Your task to perform on an android device: Open ESPN.com Image 0: 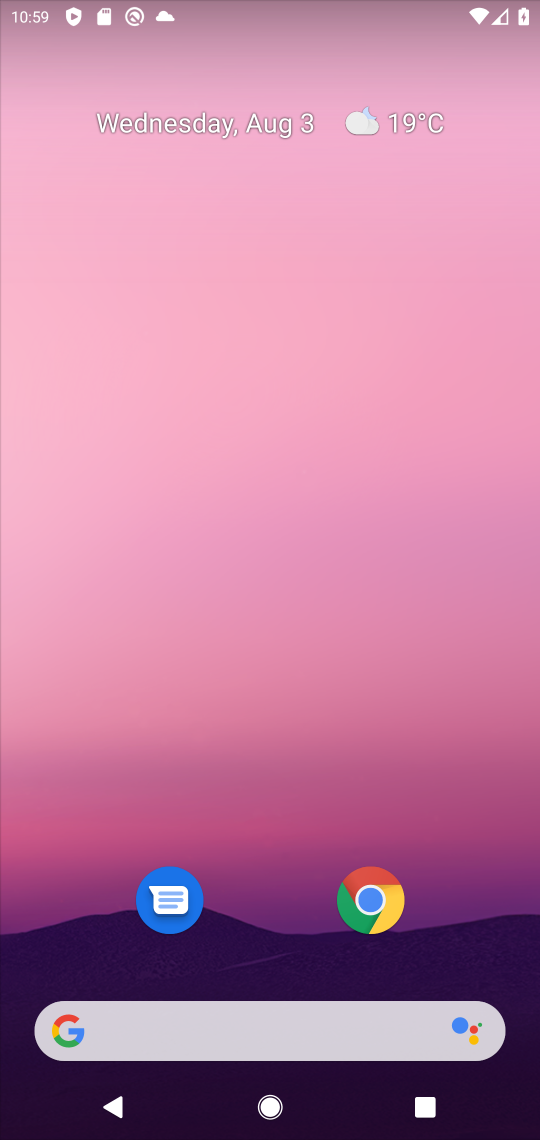
Step 0: press home button
Your task to perform on an android device: Open ESPN.com Image 1: 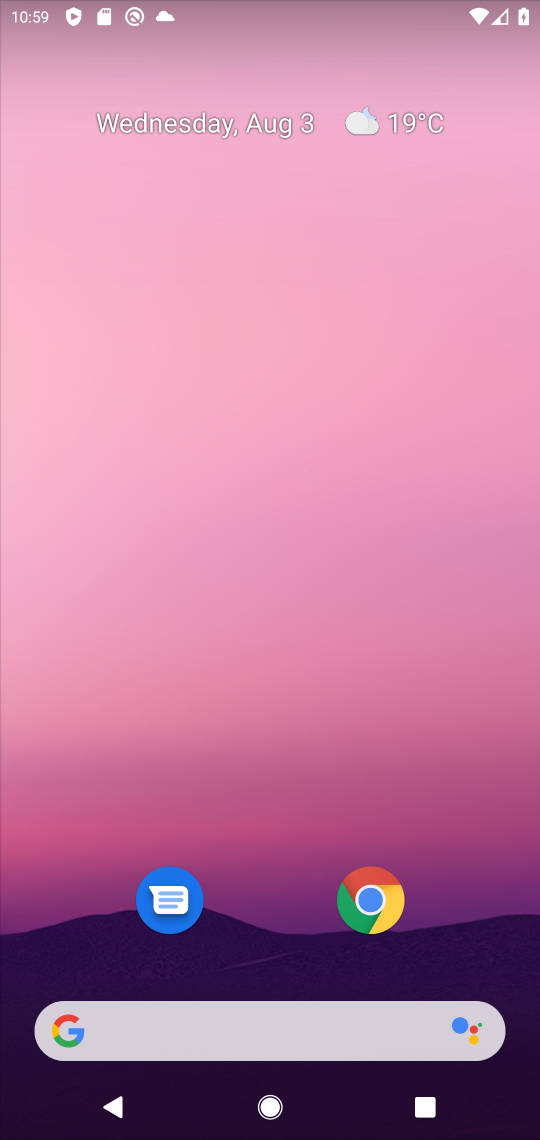
Step 1: click (65, 1037)
Your task to perform on an android device: Open ESPN.com Image 2: 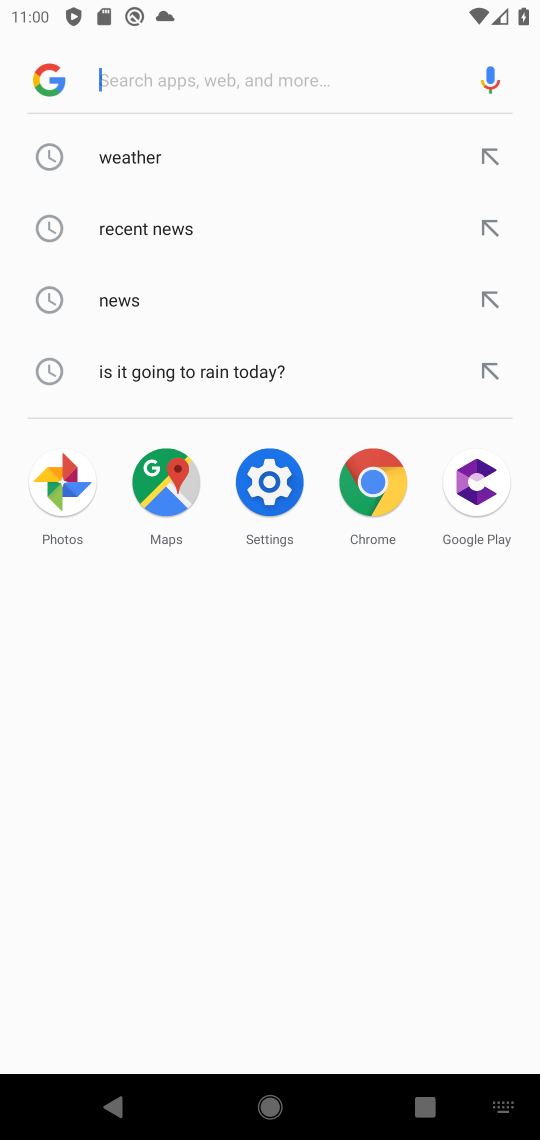
Step 2: type "ESPN.com"
Your task to perform on an android device: Open ESPN.com Image 3: 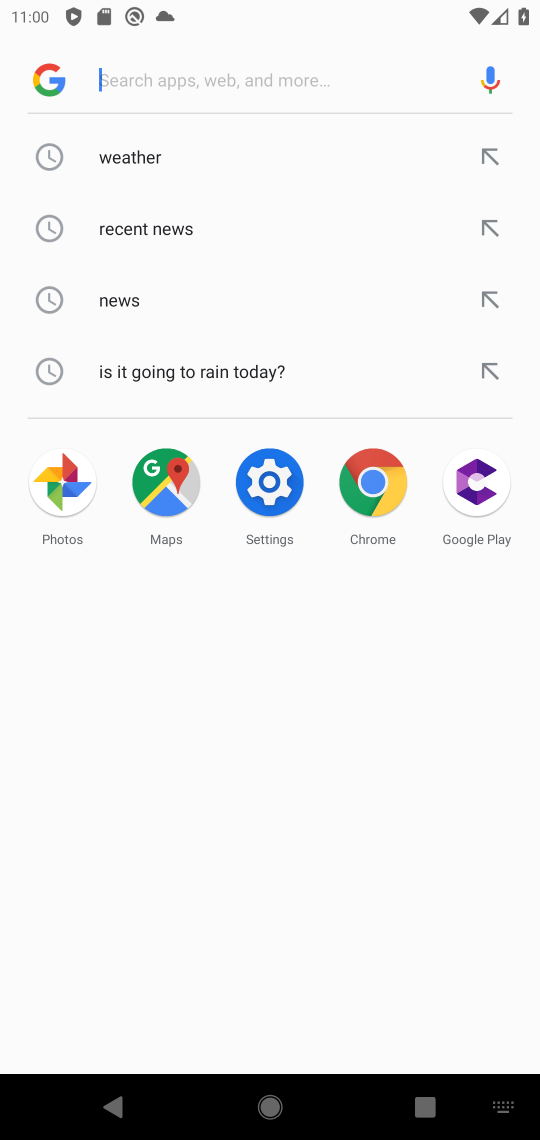
Step 3: click (197, 80)
Your task to perform on an android device: Open ESPN.com Image 4: 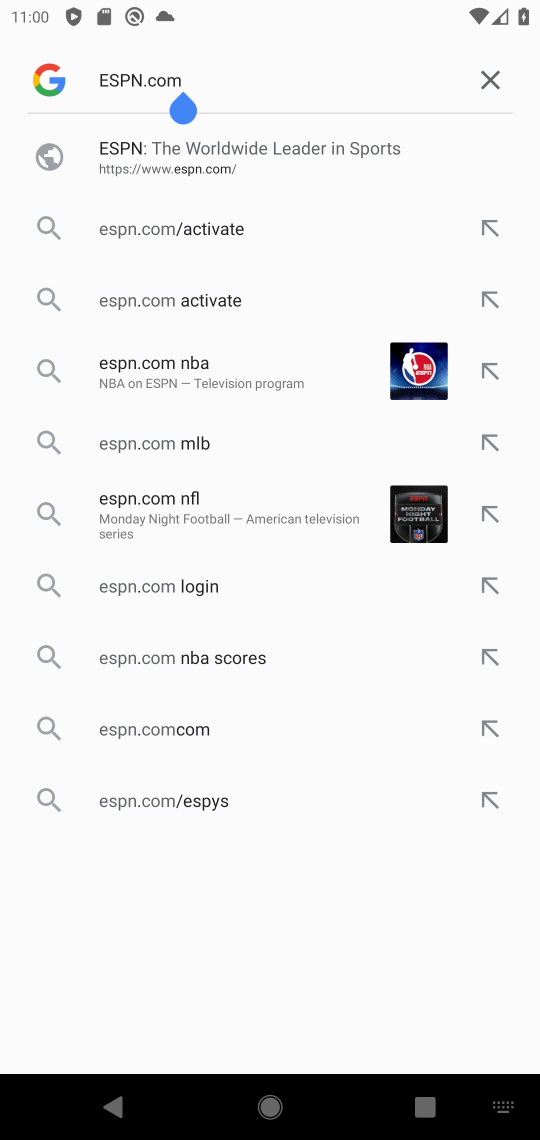
Step 4: press enter
Your task to perform on an android device: Open ESPN.com Image 5: 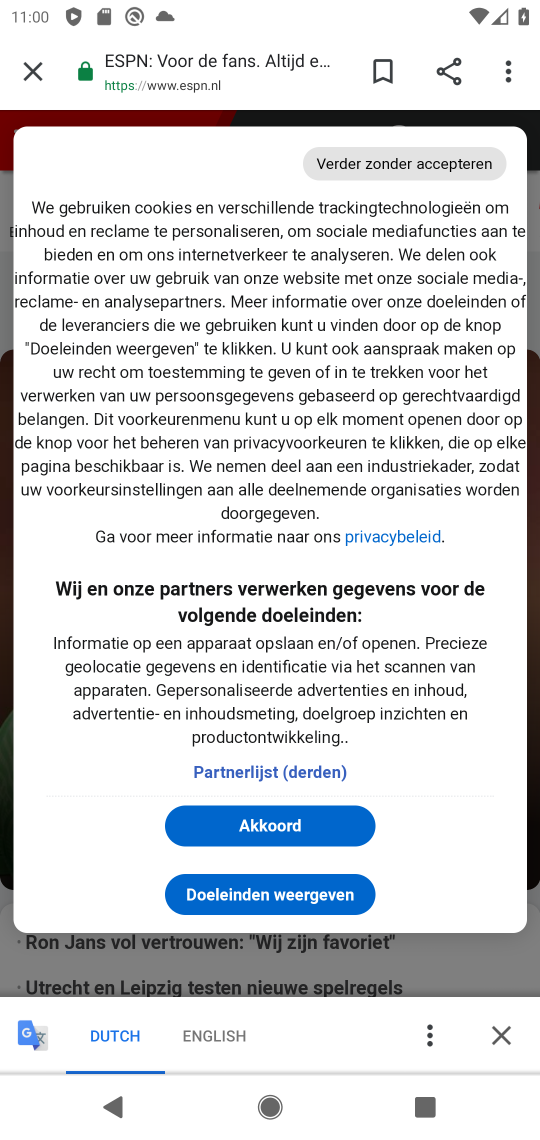
Step 5: click (245, 819)
Your task to perform on an android device: Open ESPN.com Image 6: 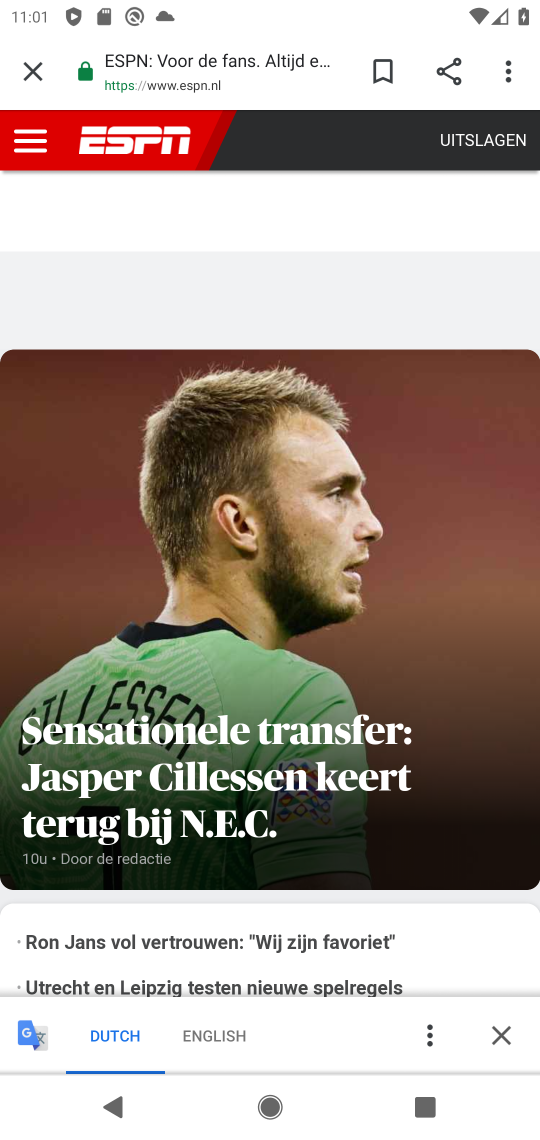
Step 6: task complete